Your task to perform on an android device: turn on the 24-hour format for clock Image 0: 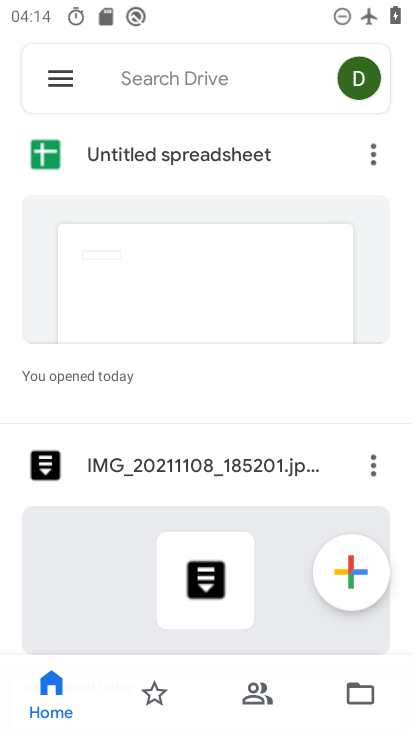
Step 0: press home button
Your task to perform on an android device: turn on the 24-hour format for clock Image 1: 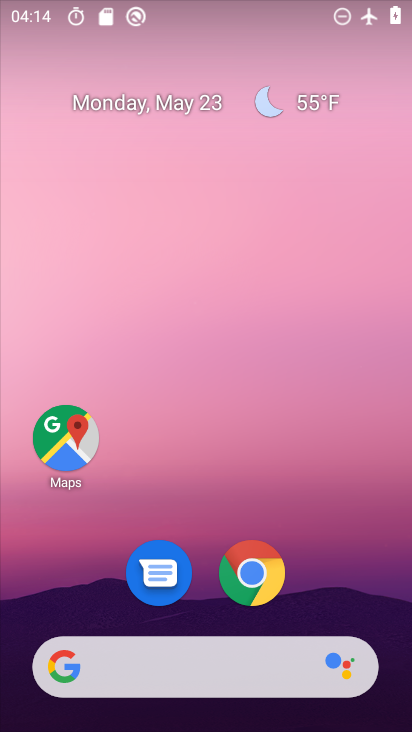
Step 1: drag from (310, 614) to (225, 37)
Your task to perform on an android device: turn on the 24-hour format for clock Image 2: 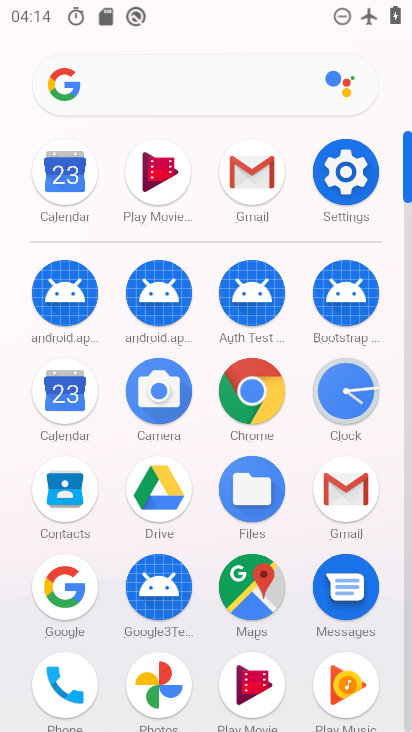
Step 2: click (354, 392)
Your task to perform on an android device: turn on the 24-hour format for clock Image 3: 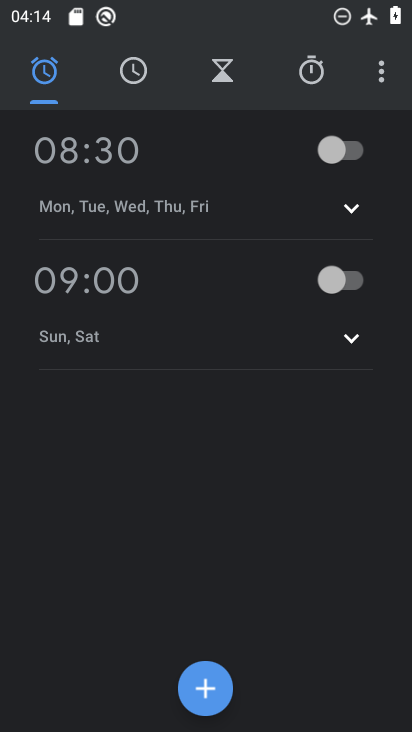
Step 3: click (392, 69)
Your task to perform on an android device: turn on the 24-hour format for clock Image 4: 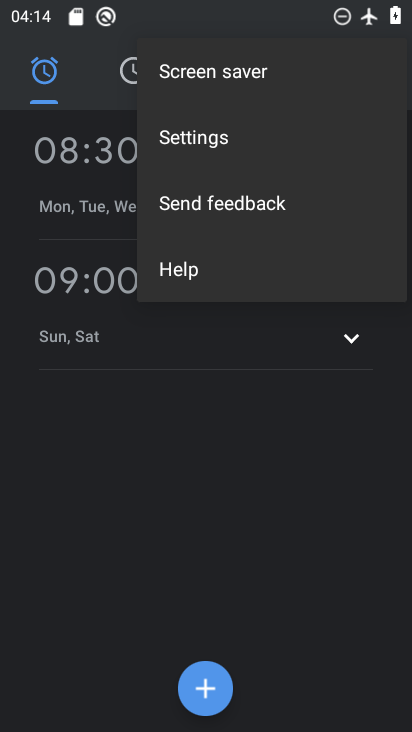
Step 4: click (234, 139)
Your task to perform on an android device: turn on the 24-hour format for clock Image 5: 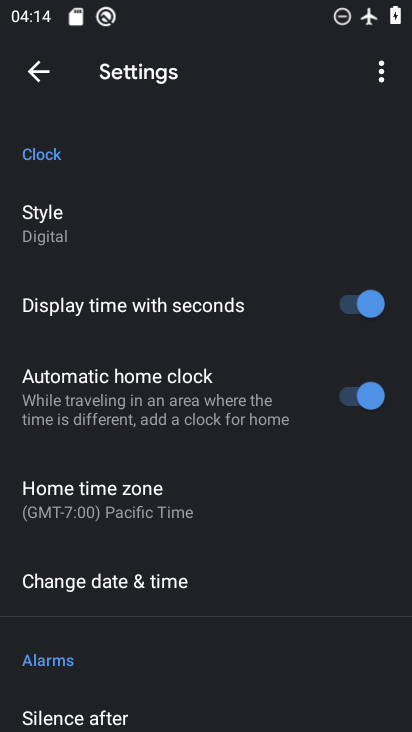
Step 5: drag from (237, 668) to (249, 555)
Your task to perform on an android device: turn on the 24-hour format for clock Image 6: 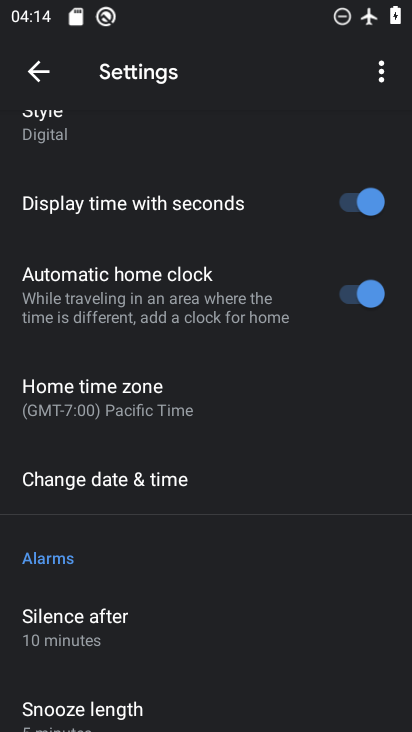
Step 6: click (171, 482)
Your task to perform on an android device: turn on the 24-hour format for clock Image 7: 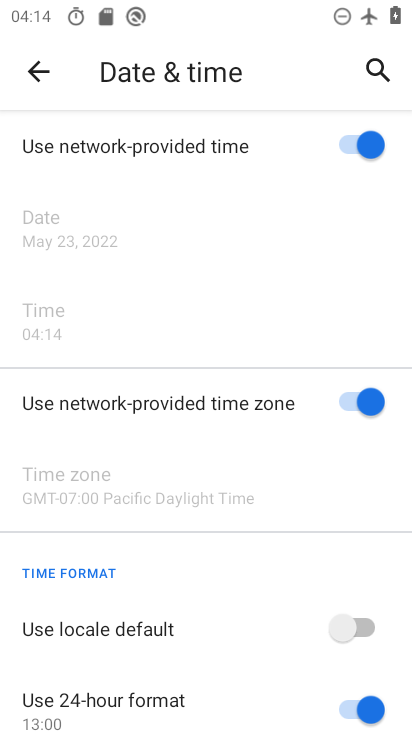
Step 7: task complete